Your task to perform on an android device: Go to battery settings Image 0: 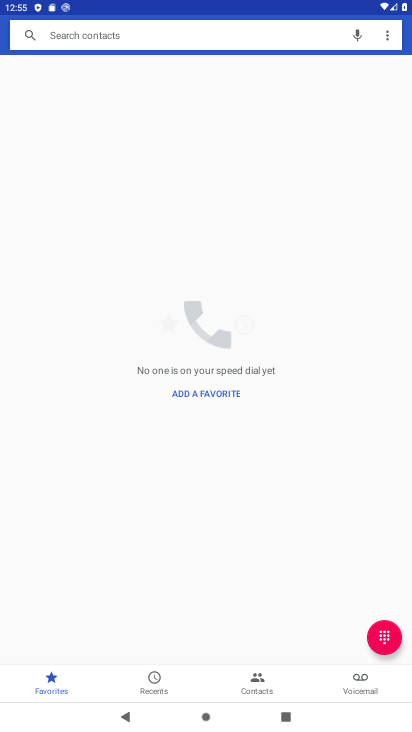
Step 0: drag from (204, 599) to (204, 279)
Your task to perform on an android device: Go to battery settings Image 1: 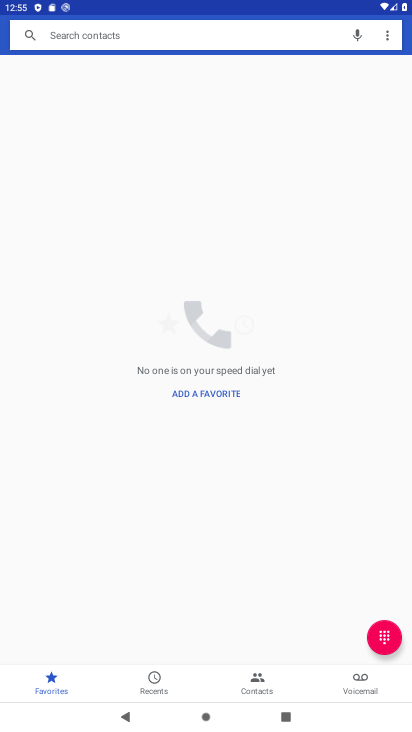
Step 1: press home button
Your task to perform on an android device: Go to battery settings Image 2: 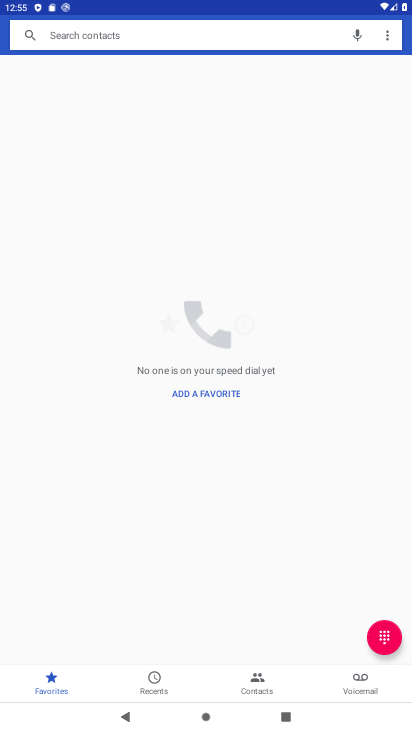
Step 2: press home button
Your task to perform on an android device: Go to battery settings Image 3: 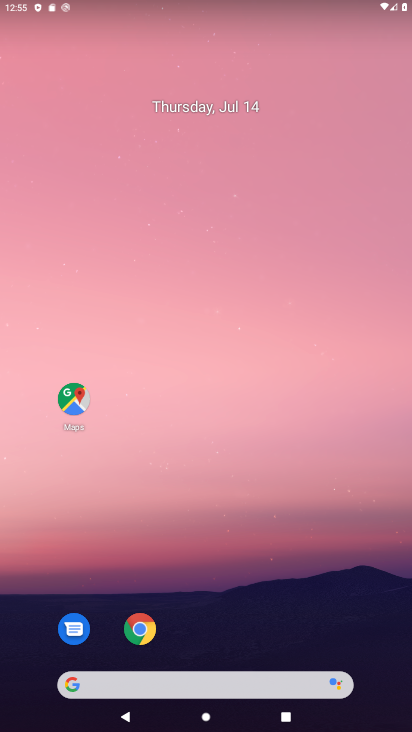
Step 3: drag from (160, 647) to (192, 231)
Your task to perform on an android device: Go to battery settings Image 4: 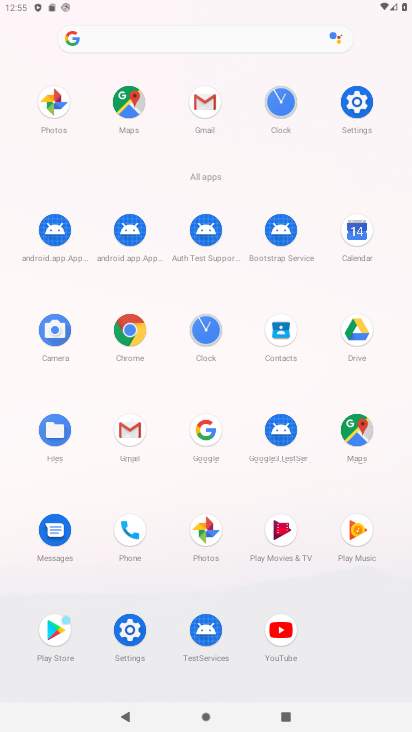
Step 4: drag from (178, 648) to (173, 365)
Your task to perform on an android device: Go to battery settings Image 5: 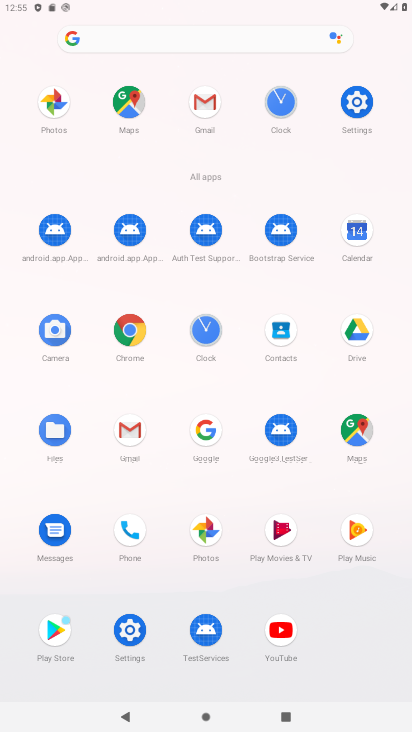
Step 5: drag from (176, 591) to (150, 208)
Your task to perform on an android device: Go to battery settings Image 6: 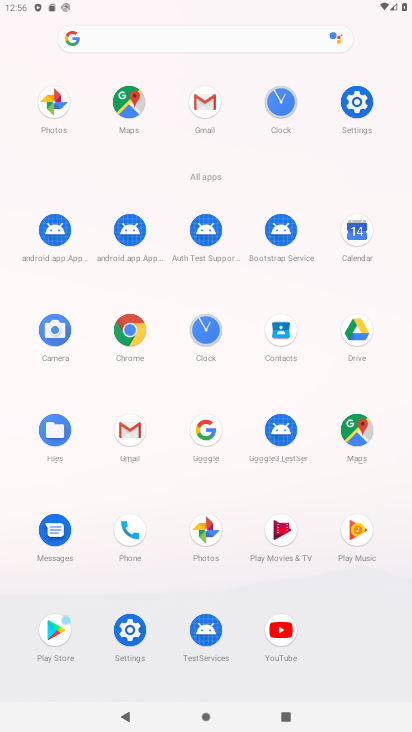
Step 6: drag from (173, 153) to (178, 540)
Your task to perform on an android device: Go to battery settings Image 7: 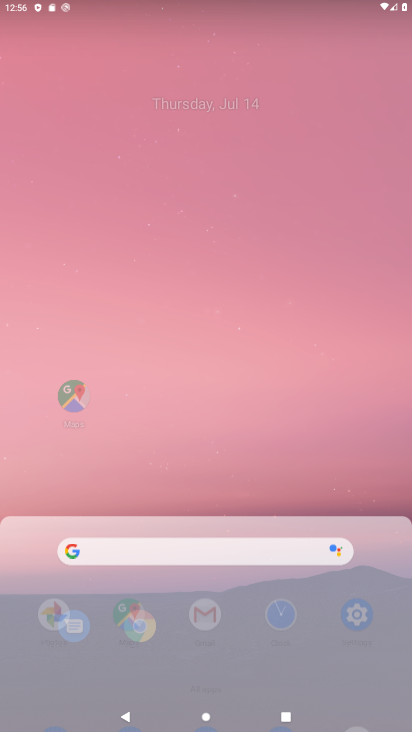
Step 7: drag from (185, 591) to (215, 252)
Your task to perform on an android device: Go to battery settings Image 8: 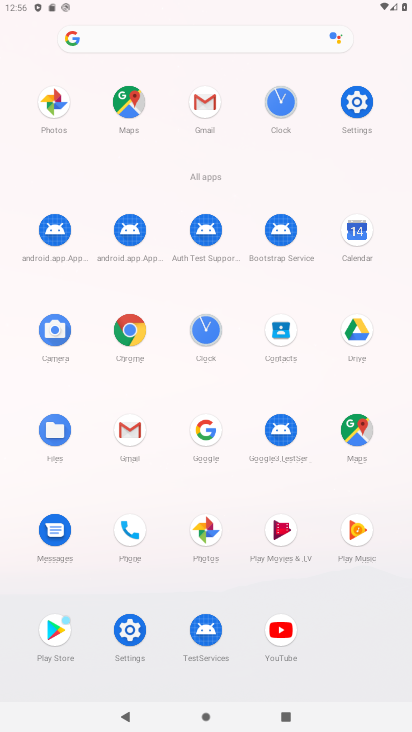
Step 8: drag from (161, 577) to (185, 355)
Your task to perform on an android device: Go to battery settings Image 9: 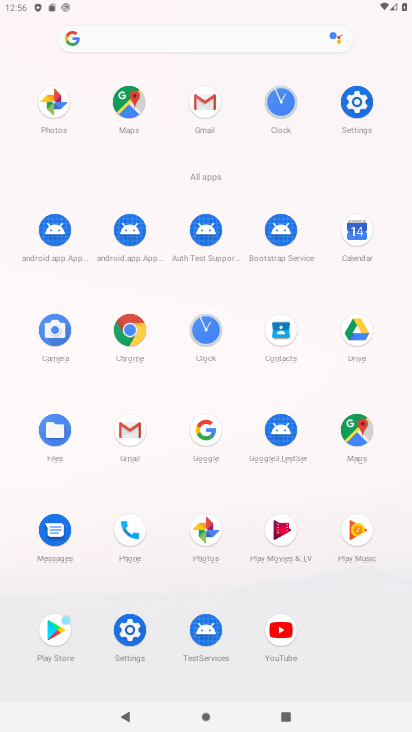
Step 9: click (126, 640)
Your task to perform on an android device: Go to battery settings Image 10: 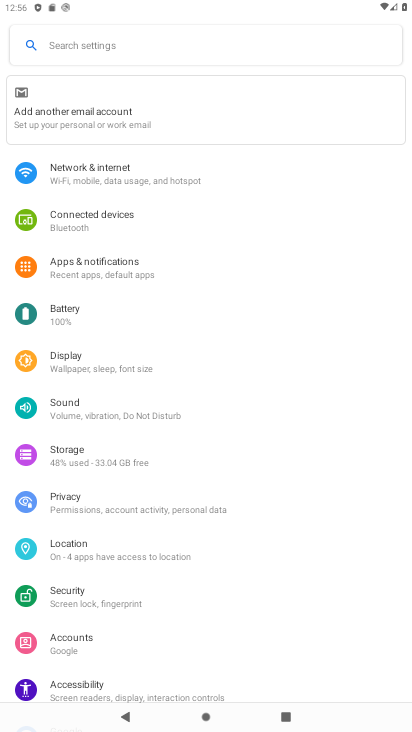
Step 10: drag from (203, 625) to (313, 240)
Your task to perform on an android device: Go to battery settings Image 11: 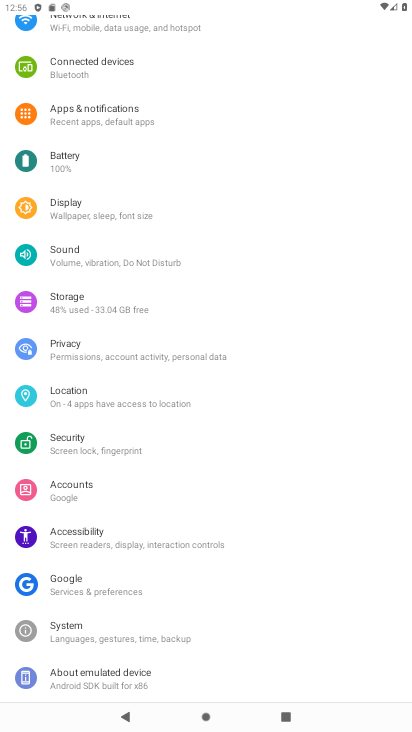
Step 11: click (102, 161)
Your task to perform on an android device: Go to battery settings Image 12: 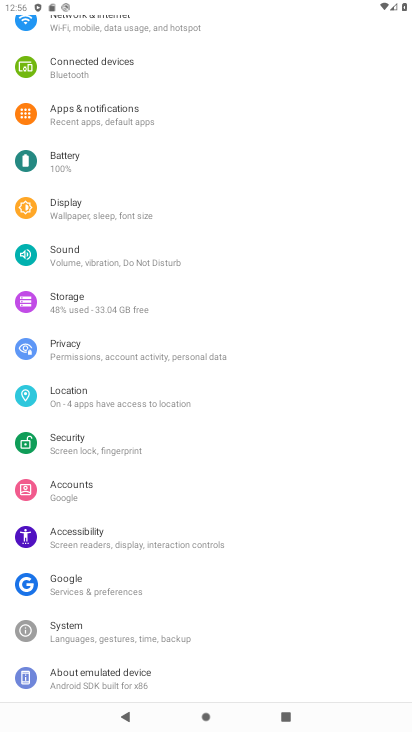
Step 12: click (99, 164)
Your task to perform on an android device: Go to battery settings Image 13: 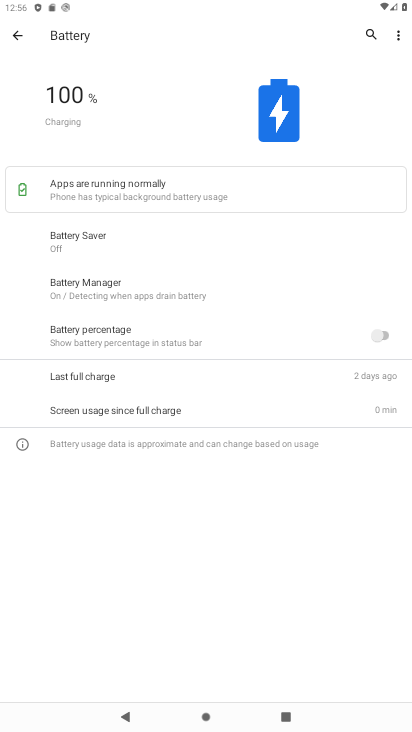
Step 13: task complete